Your task to perform on an android device: Open calendar and show me the fourth week of next month Image 0: 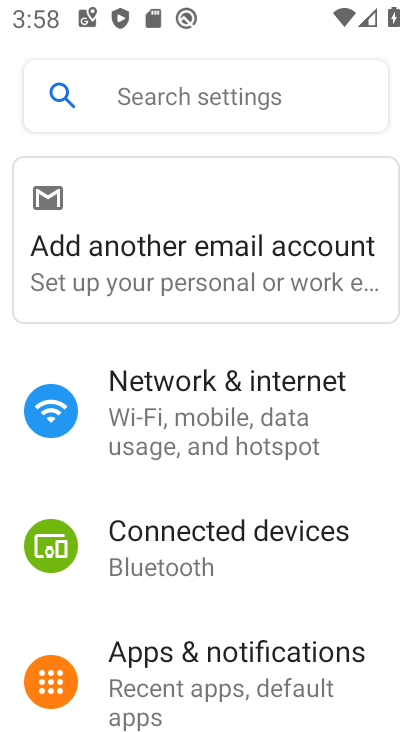
Step 0: press home button
Your task to perform on an android device: Open calendar and show me the fourth week of next month Image 1: 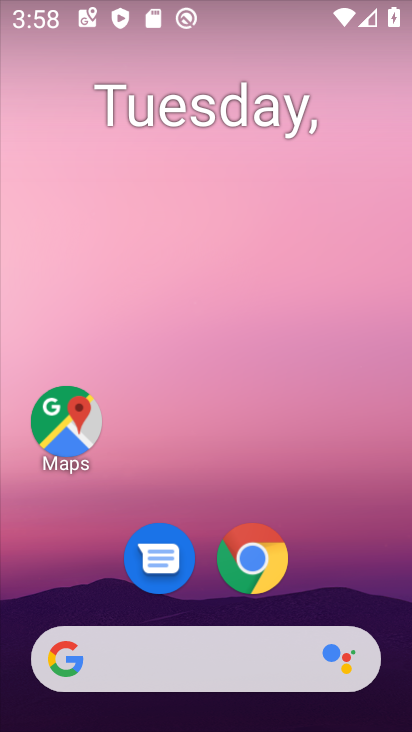
Step 1: drag from (73, 614) to (251, 120)
Your task to perform on an android device: Open calendar and show me the fourth week of next month Image 2: 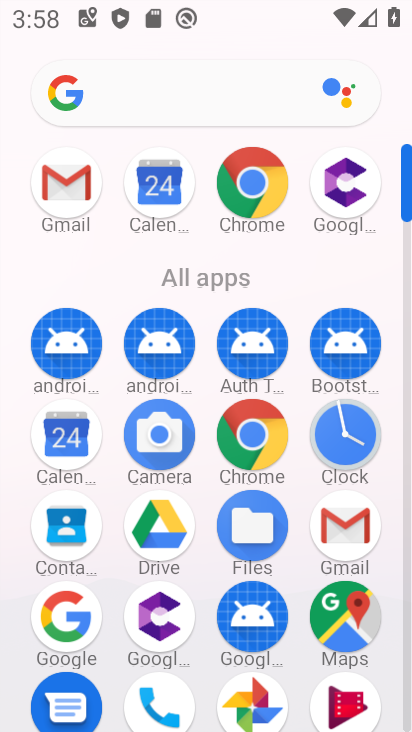
Step 2: drag from (180, 632) to (272, 425)
Your task to perform on an android device: Open calendar and show me the fourth week of next month Image 3: 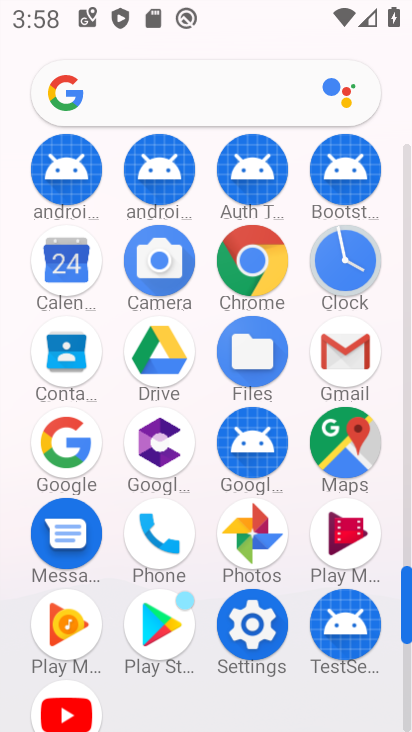
Step 3: click (66, 287)
Your task to perform on an android device: Open calendar and show me the fourth week of next month Image 4: 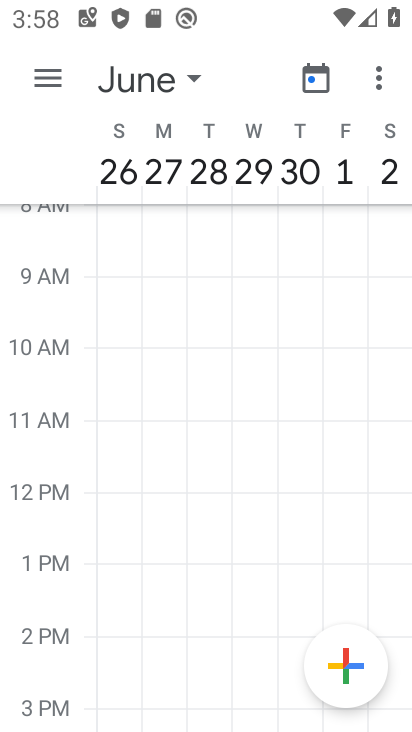
Step 4: task complete